Your task to perform on an android device: turn off airplane mode Image 0: 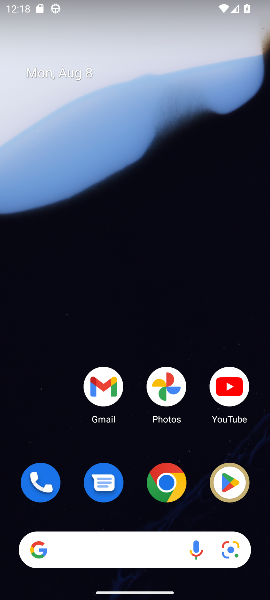
Step 0: drag from (178, 540) to (128, 130)
Your task to perform on an android device: turn off airplane mode Image 1: 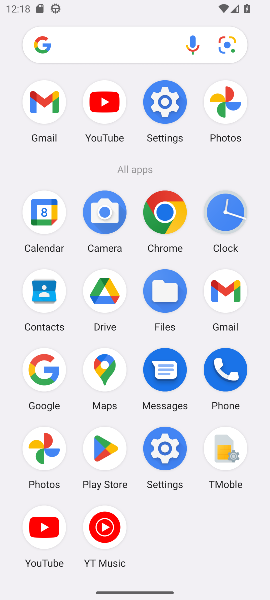
Step 1: click (163, 90)
Your task to perform on an android device: turn off airplane mode Image 2: 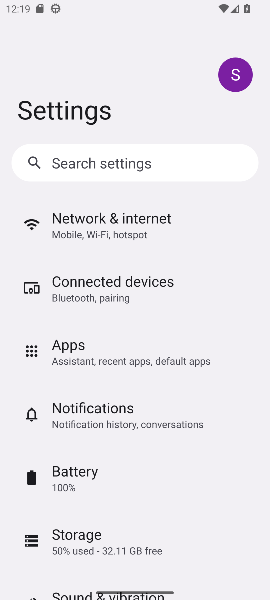
Step 2: click (127, 210)
Your task to perform on an android device: turn off airplane mode Image 3: 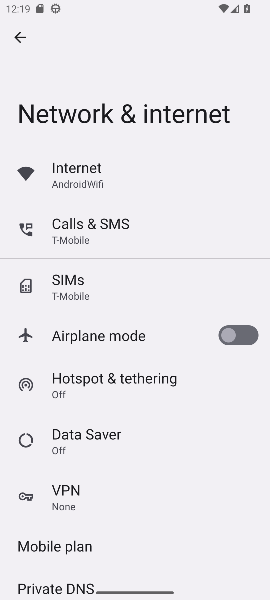
Step 3: task complete